Your task to perform on an android device: stop showing notifications on the lock screen Image 0: 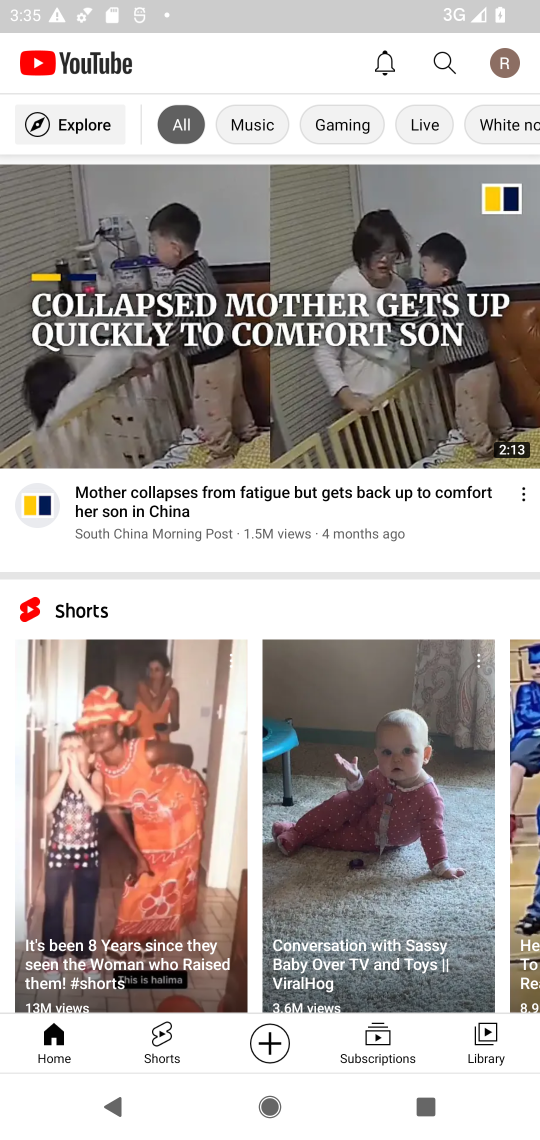
Step 0: press home button
Your task to perform on an android device: stop showing notifications on the lock screen Image 1: 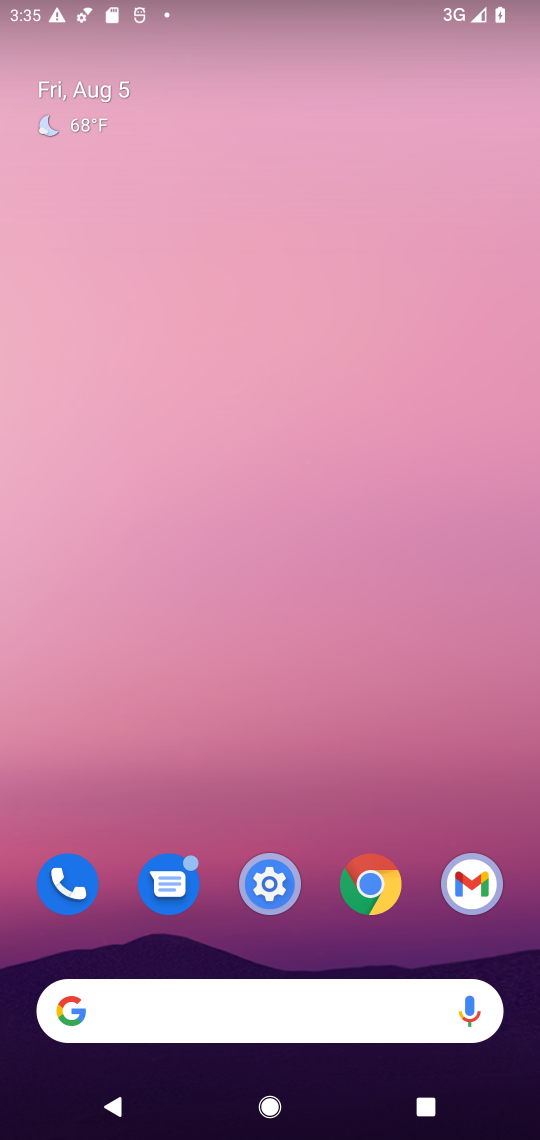
Step 1: drag from (439, 808) to (305, 30)
Your task to perform on an android device: stop showing notifications on the lock screen Image 2: 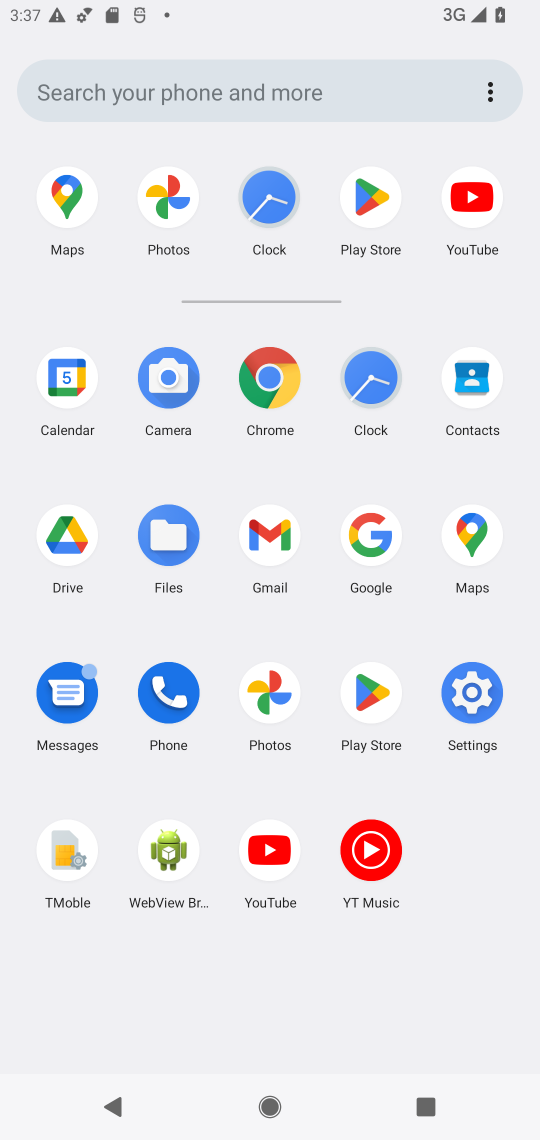
Step 2: click (481, 696)
Your task to perform on an android device: stop showing notifications on the lock screen Image 3: 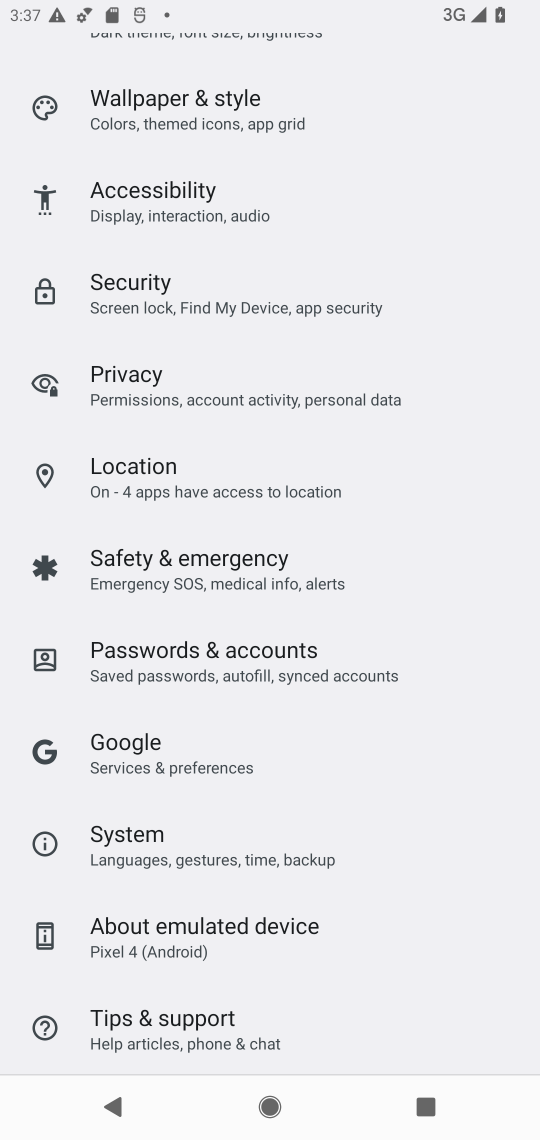
Step 3: drag from (201, 207) to (299, 1037)
Your task to perform on an android device: stop showing notifications on the lock screen Image 4: 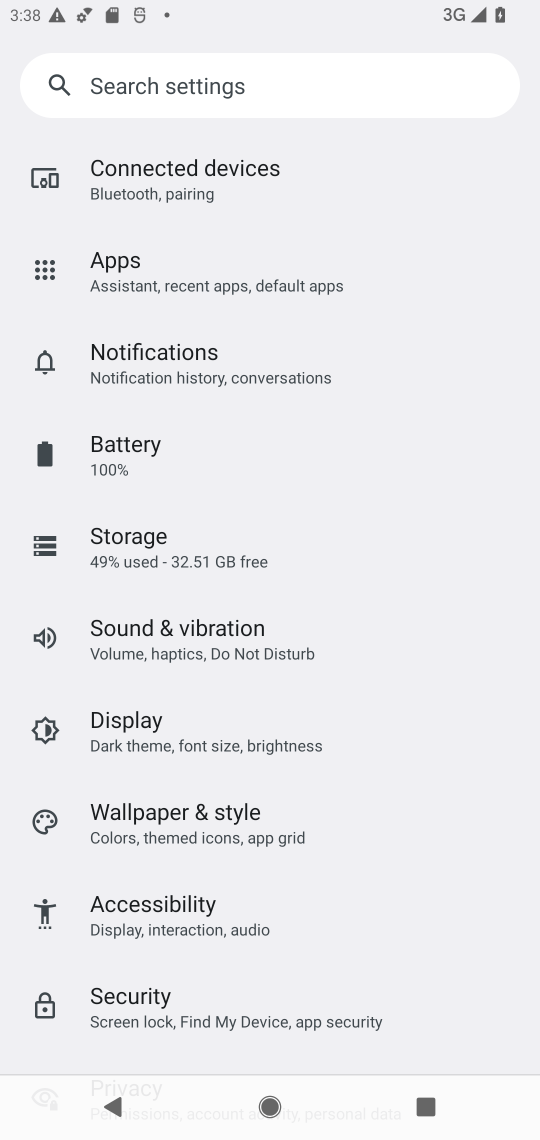
Step 4: click (204, 360)
Your task to perform on an android device: stop showing notifications on the lock screen Image 5: 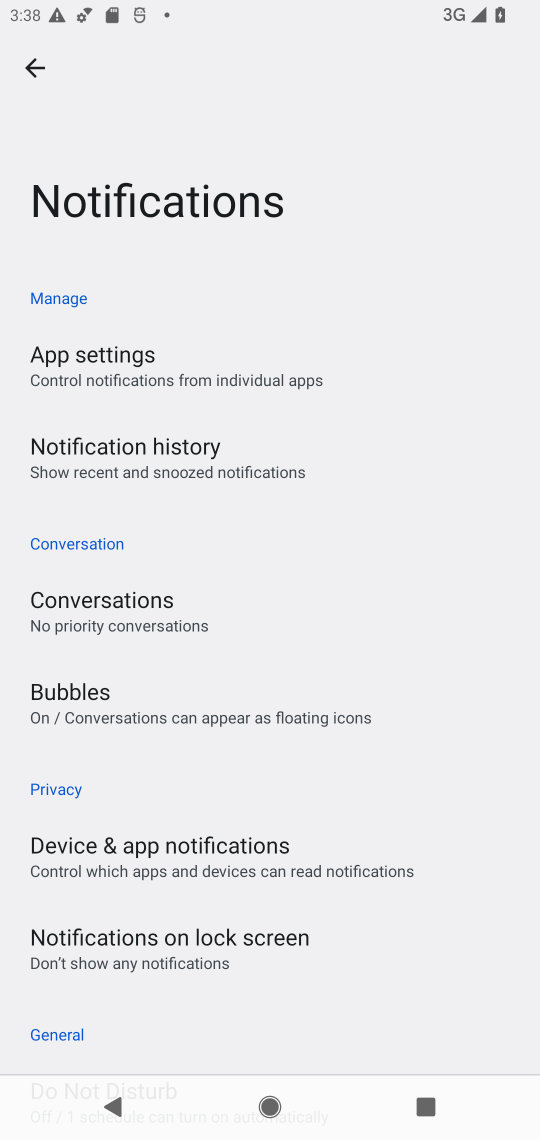
Step 5: click (220, 933)
Your task to perform on an android device: stop showing notifications on the lock screen Image 6: 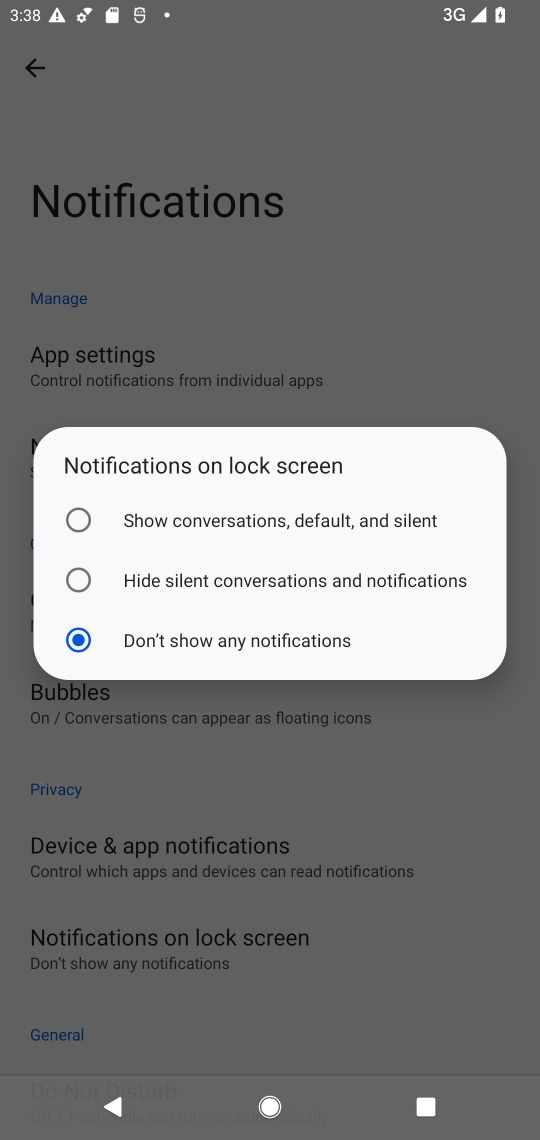
Step 6: task complete